Your task to perform on an android device: empty trash in google photos Image 0: 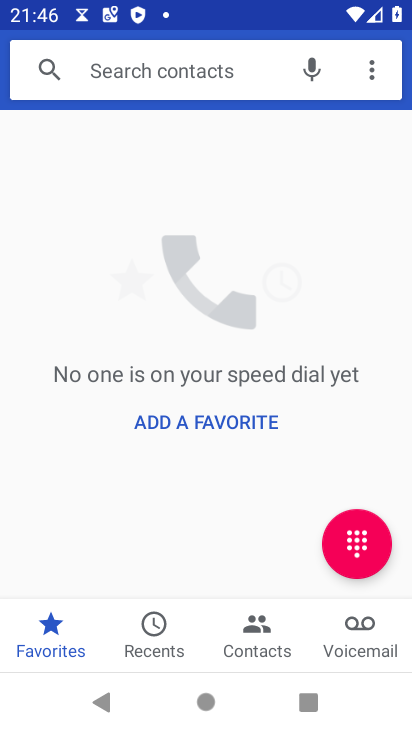
Step 0: press home button
Your task to perform on an android device: empty trash in google photos Image 1: 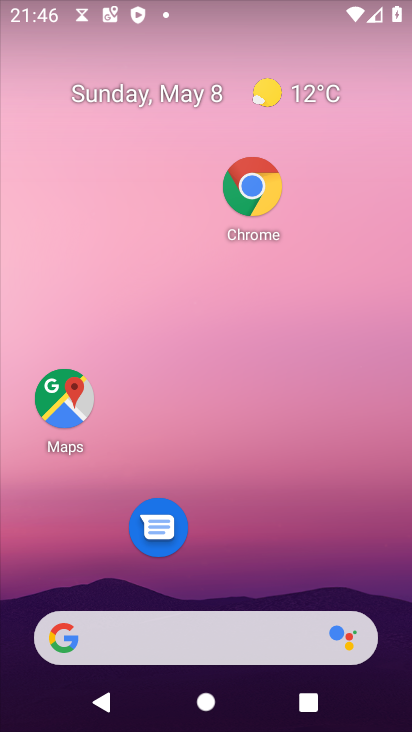
Step 1: click (377, 495)
Your task to perform on an android device: empty trash in google photos Image 2: 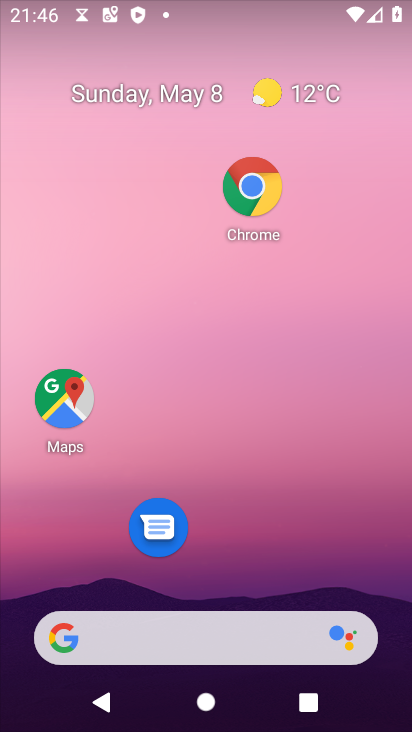
Step 2: click (377, 495)
Your task to perform on an android device: empty trash in google photos Image 3: 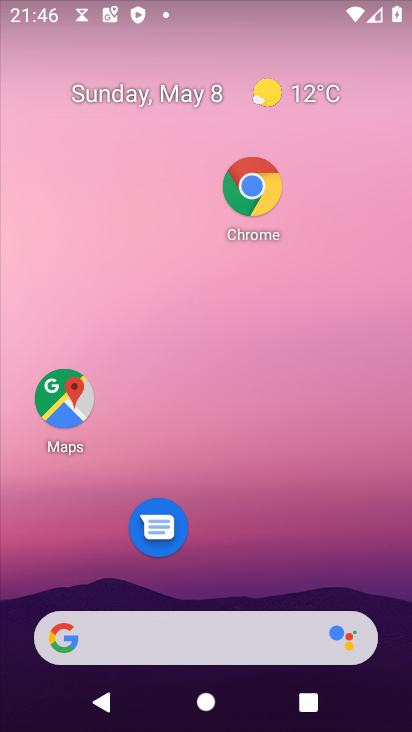
Step 3: click (377, 495)
Your task to perform on an android device: empty trash in google photos Image 4: 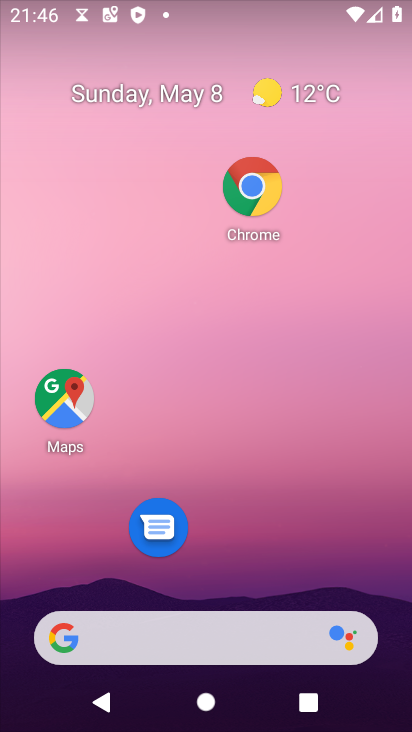
Step 4: click (377, 495)
Your task to perform on an android device: empty trash in google photos Image 5: 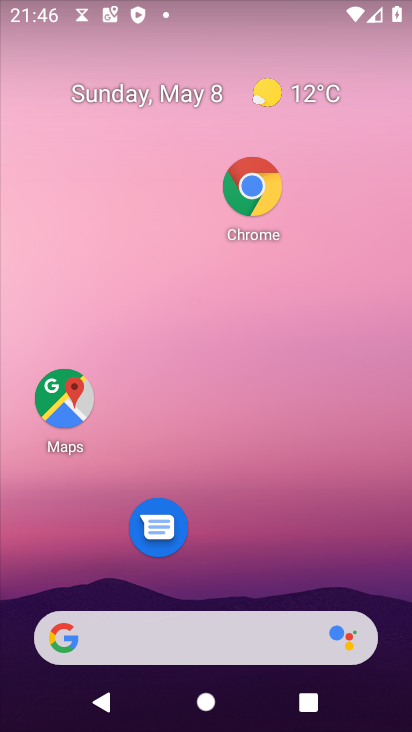
Step 5: drag from (239, 574) to (288, 187)
Your task to perform on an android device: empty trash in google photos Image 6: 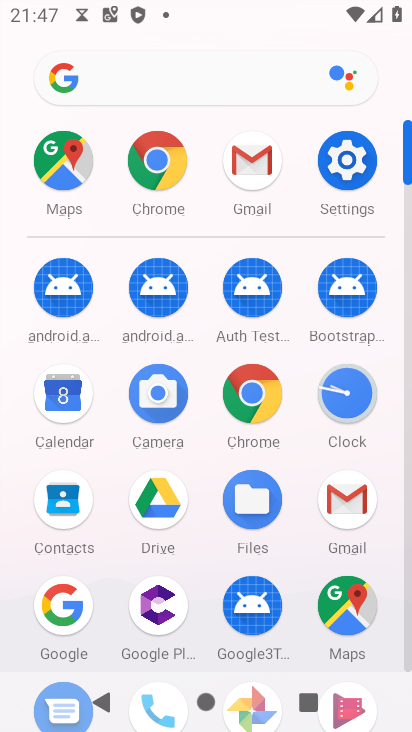
Step 6: drag from (272, 650) to (291, 427)
Your task to perform on an android device: empty trash in google photos Image 7: 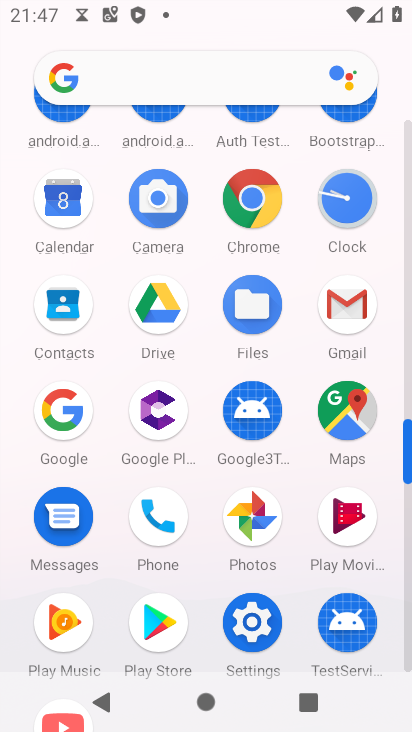
Step 7: click (254, 511)
Your task to perform on an android device: empty trash in google photos Image 8: 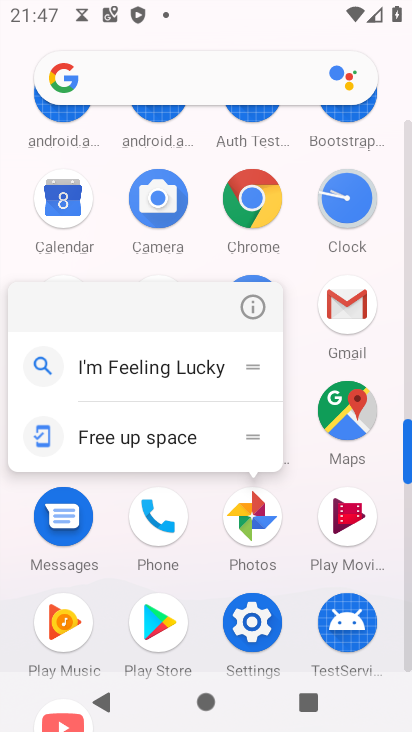
Step 8: click (242, 503)
Your task to perform on an android device: empty trash in google photos Image 9: 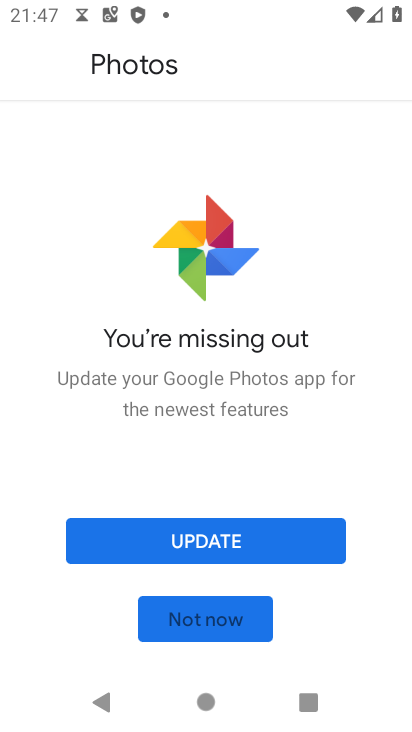
Step 9: click (239, 542)
Your task to perform on an android device: empty trash in google photos Image 10: 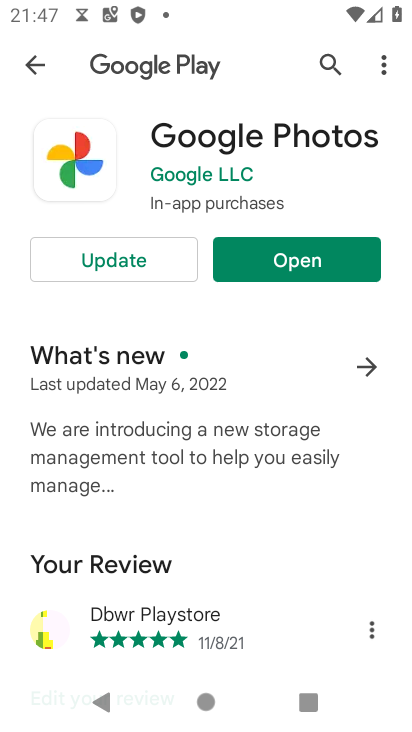
Step 10: press back button
Your task to perform on an android device: empty trash in google photos Image 11: 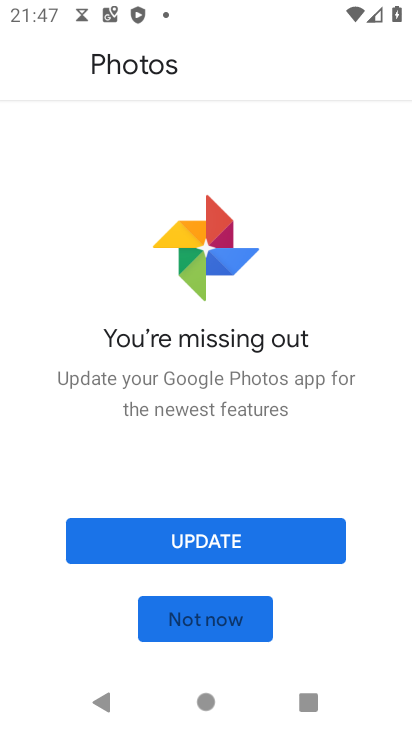
Step 11: click (212, 612)
Your task to perform on an android device: empty trash in google photos Image 12: 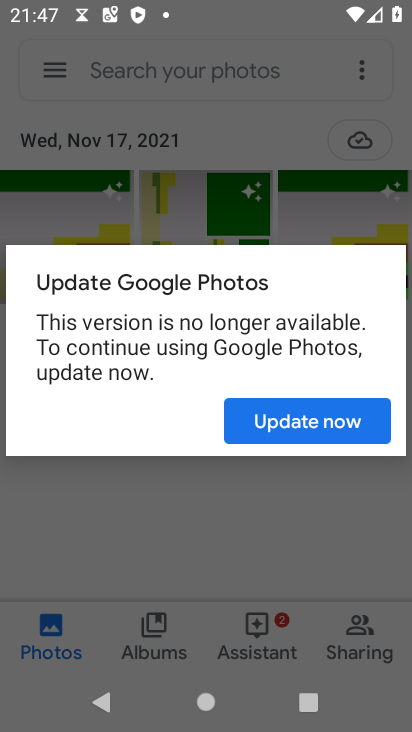
Step 12: click (300, 422)
Your task to perform on an android device: empty trash in google photos Image 13: 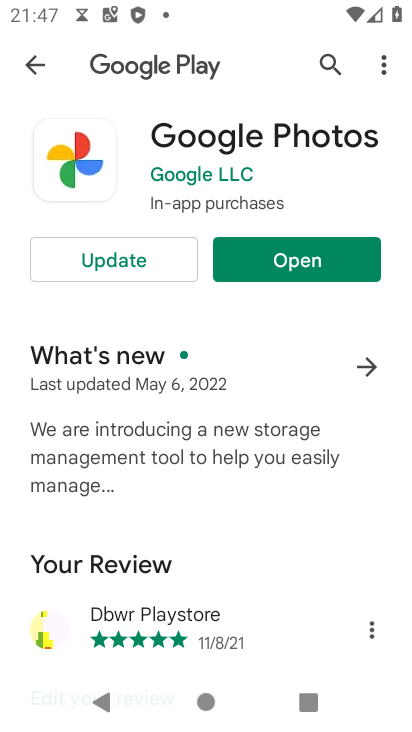
Step 13: press back button
Your task to perform on an android device: empty trash in google photos Image 14: 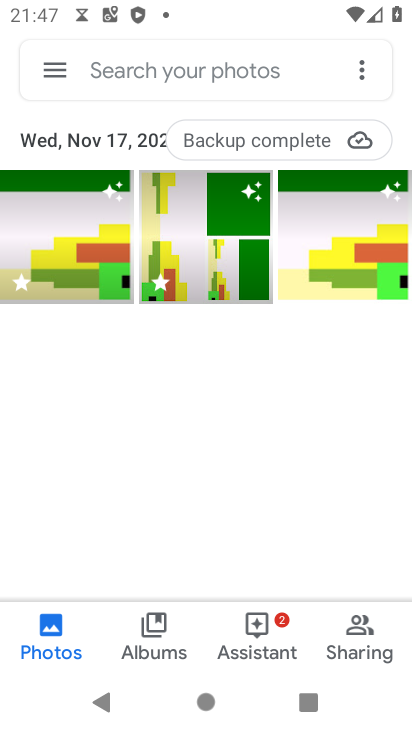
Step 14: click (46, 67)
Your task to perform on an android device: empty trash in google photos Image 15: 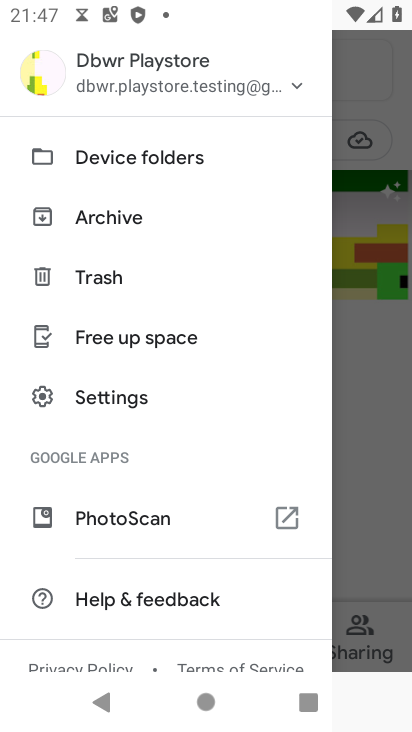
Step 15: click (114, 282)
Your task to perform on an android device: empty trash in google photos Image 16: 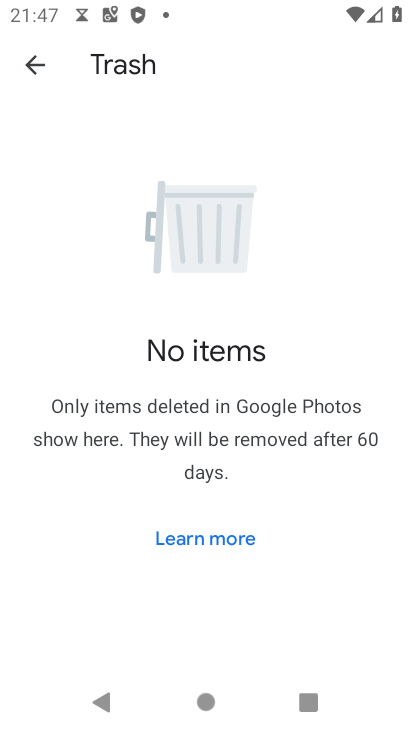
Step 16: task complete